Your task to perform on an android device: Go to network settings Image 0: 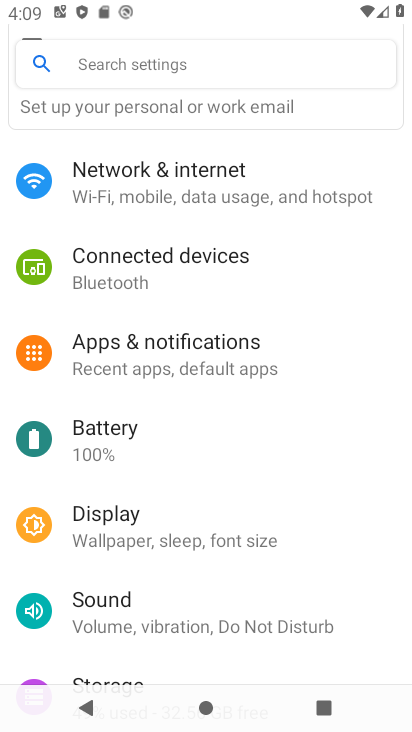
Step 0: click (239, 190)
Your task to perform on an android device: Go to network settings Image 1: 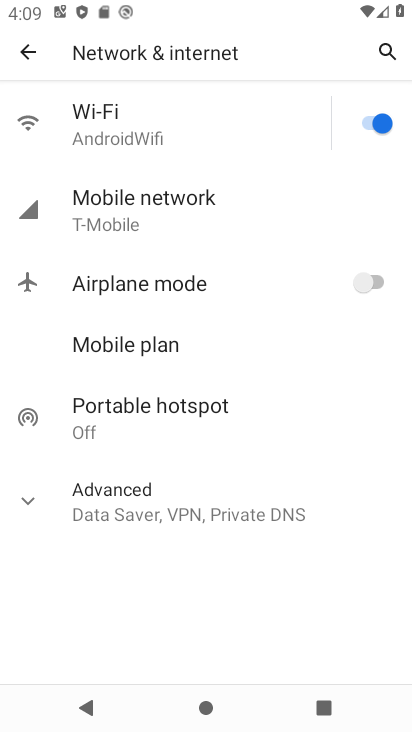
Step 1: click (34, 506)
Your task to perform on an android device: Go to network settings Image 2: 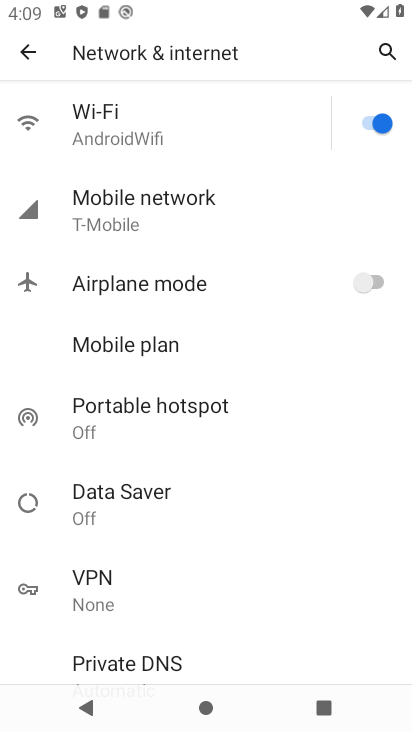
Step 2: task complete